Your task to perform on an android device: Go to eBay Image 0: 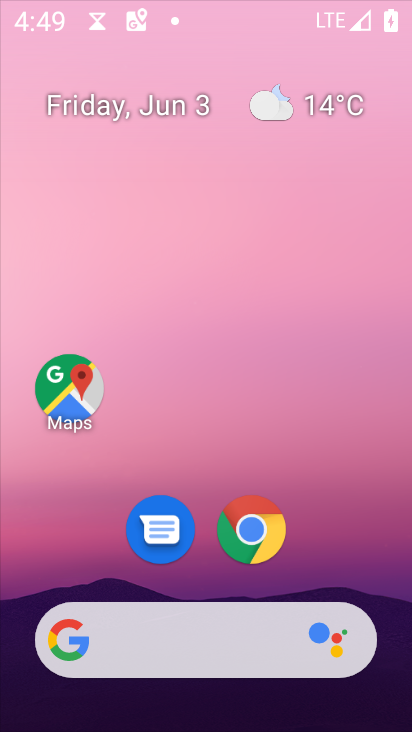
Step 0: click (293, 6)
Your task to perform on an android device: Go to eBay Image 1: 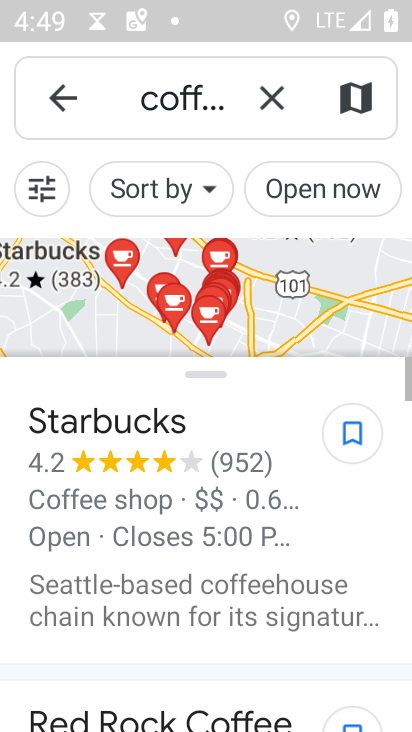
Step 1: press home button
Your task to perform on an android device: Go to eBay Image 2: 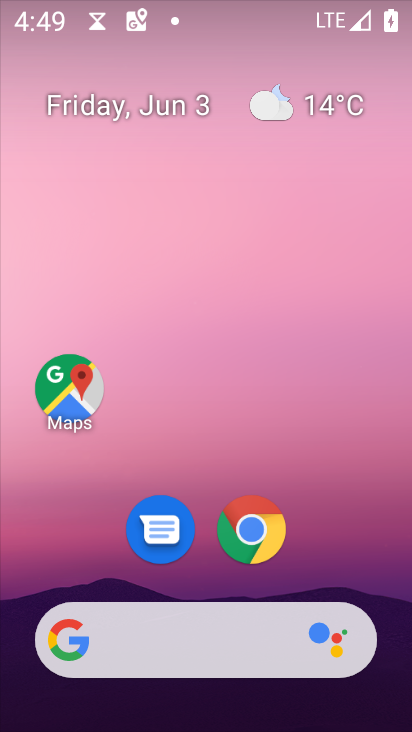
Step 2: drag from (309, 473) to (213, 7)
Your task to perform on an android device: Go to eBay Image 3: 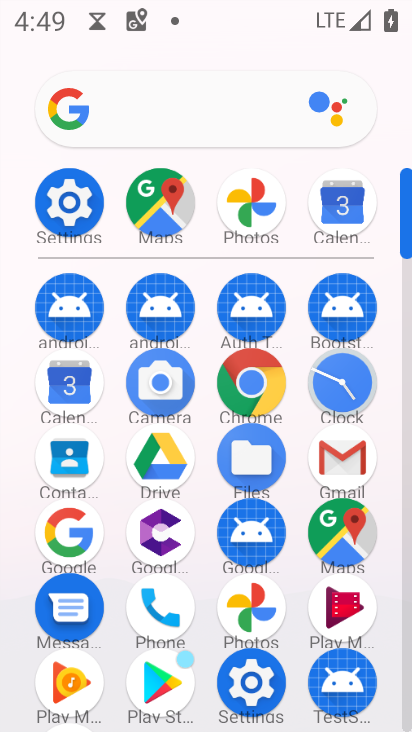
Step 3: click (257, 397)
Your task to perform on an android device: Go to eBay Image 4: 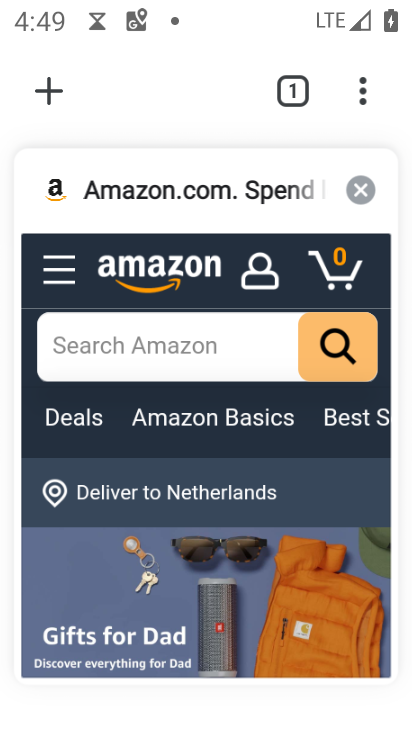
Step 4: drag from (231, 343) to (286, 9)
Your task to perform on an android device: Go to eBay Image 5: 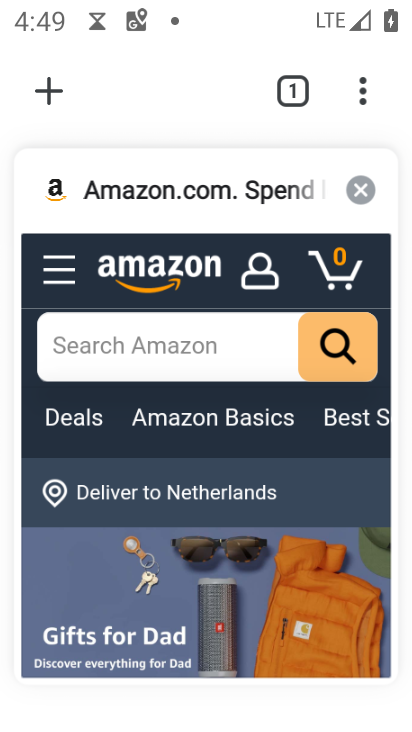
Step 5: click (355, 198)
Your task to perform on an android device: Go to eBay Image 6: 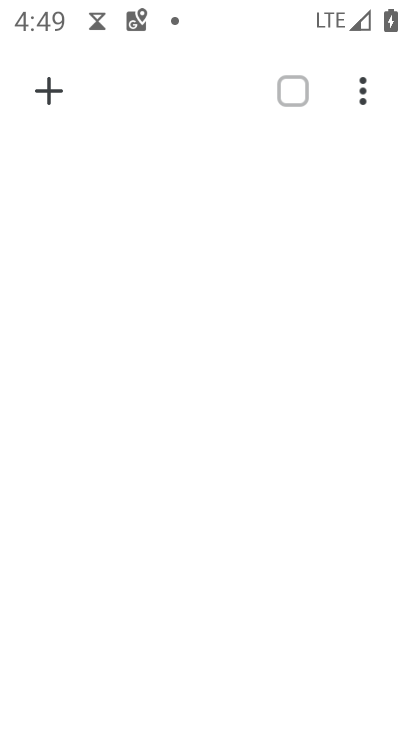
Step 6: press back button
Your task to perform on an android device: Go to eBay Image 7: 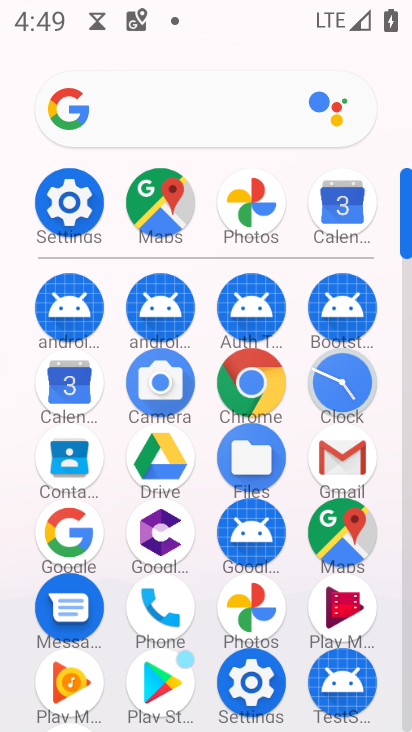
Step 7: click (248, 398)
Your task to perform on an android device: Go to eBay Image 8: 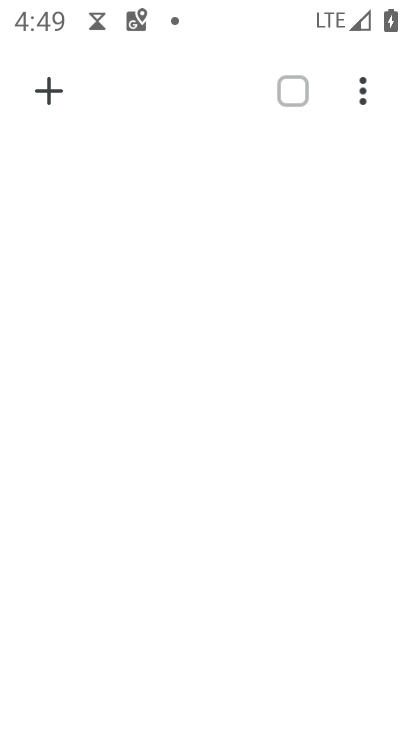
Step 8: task complete